Your task to perform on an android device: empty trash in google photos Image 0: 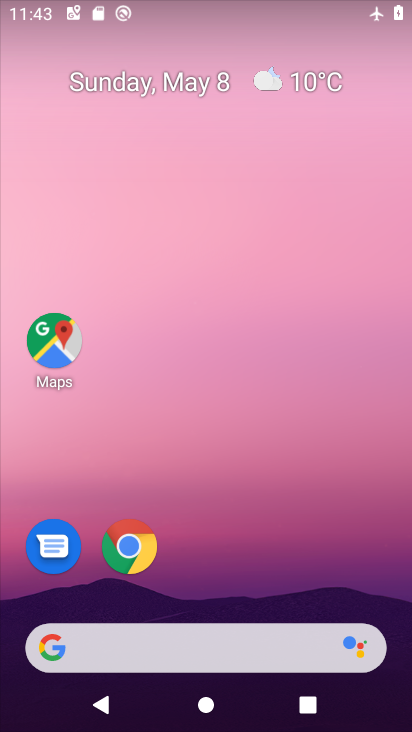
Step 0: drag from (386, 586) to (374, 15)
Your task to perform on an android device: empty trash in google photos Image 1: 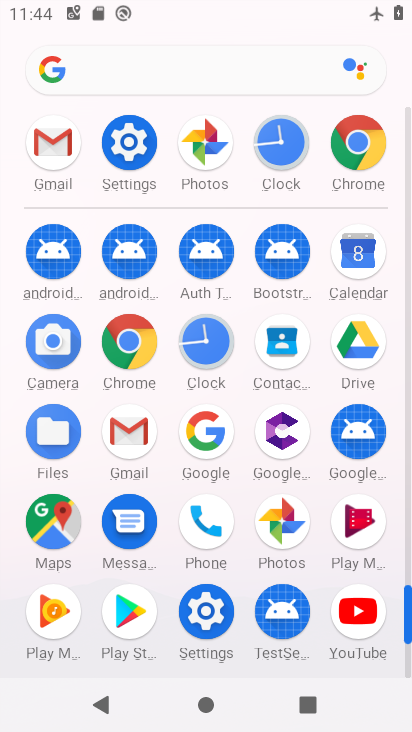
Step 1: click (405, 661)
Your task to perform on an android device: empty trash in google photos Image 2: 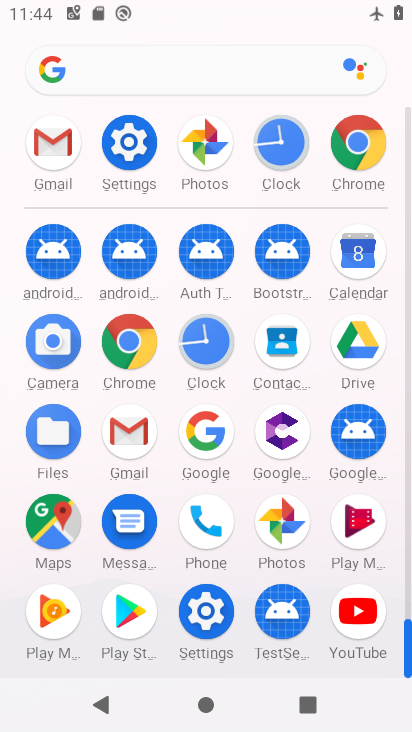
Step 2: click (281, 515)
Your task to perform on an android device: empty trash in google photos Image 3: 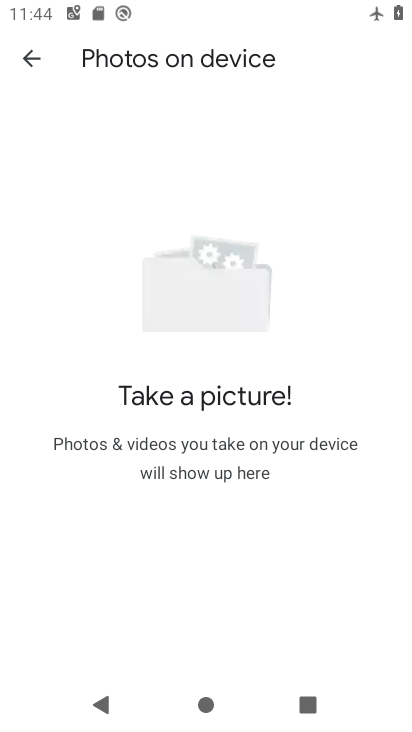
Step 3: press back button
Your task to perform on an android device: empty trash in google photos Image 4: 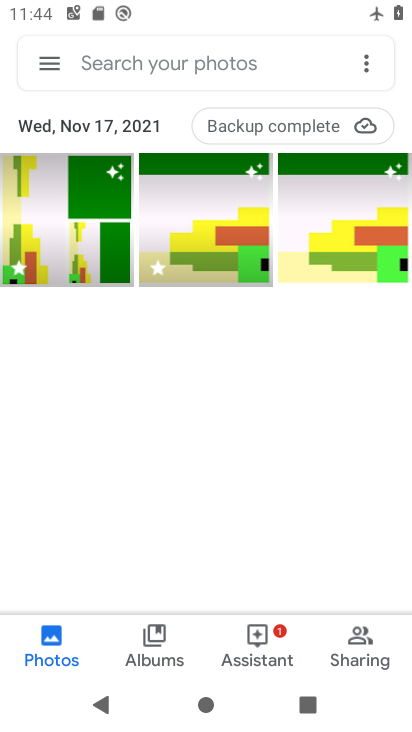
Step 4: click (50, 63)
Your task to perform on an android device: empty trash in google photos Image 5: 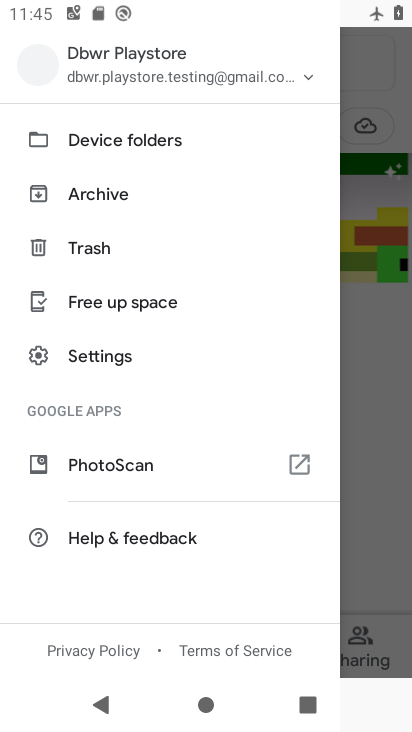
Step 5: click (95, 249)
Your task to perform on an android device: empty trash in google photos Image 6: 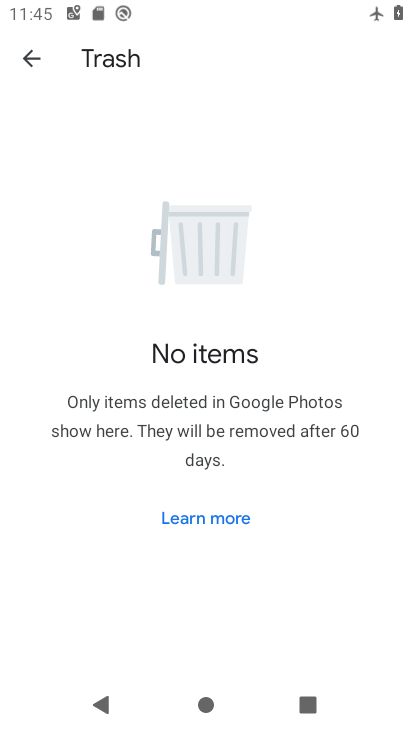
Step 6: task complete